Your task to perform on an android device: Open Amazon Image 0: 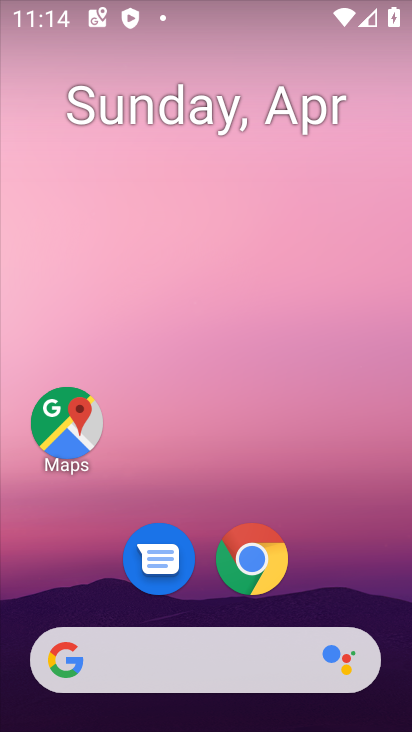
Step 0: click (268, 564)
Your task to perform on an android device: Open Amazon Image 1: 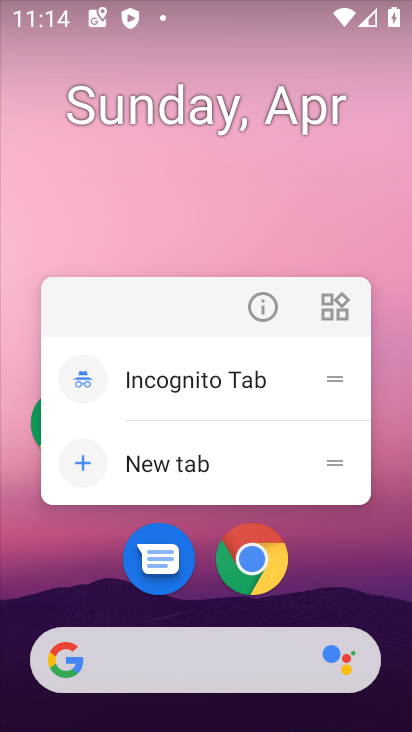
Step 1: click (268, 564)
Your task to perform on an android device: Open Amazon Image 2: 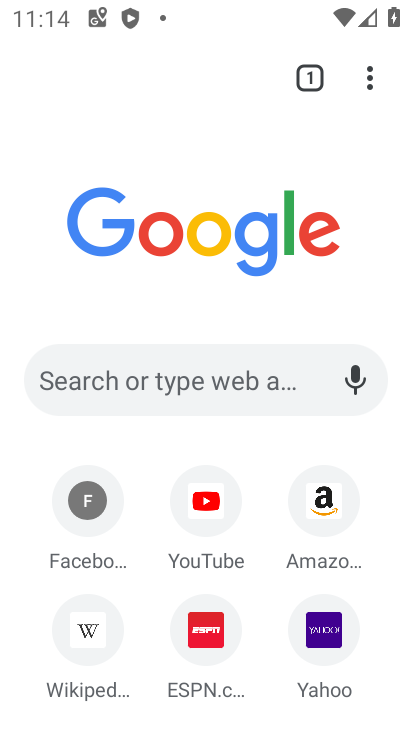
Step 2: click (305, 518)
Your task to perform on an android device: Open Amazon Image 3: 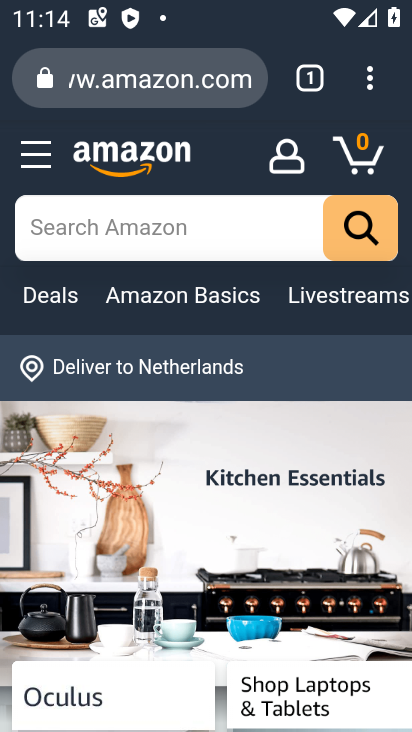
Step 3: task complete